Your task to perform on an android device: Open Chrome and go to settings Image 0: 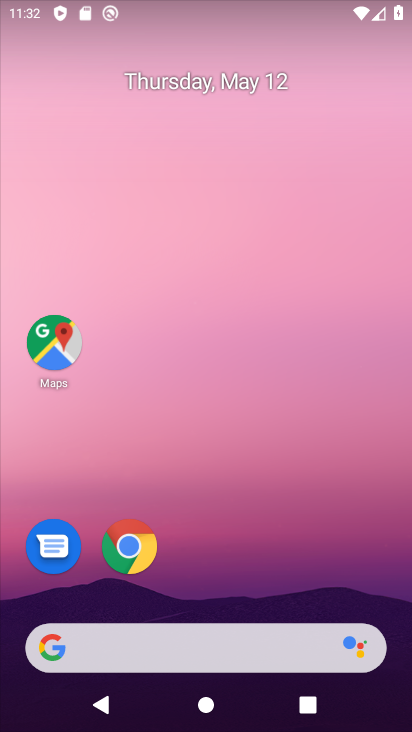
Step 0: click (126, 539)
Your task to perform on an android device: Open Chrome and go to settings Image 1: 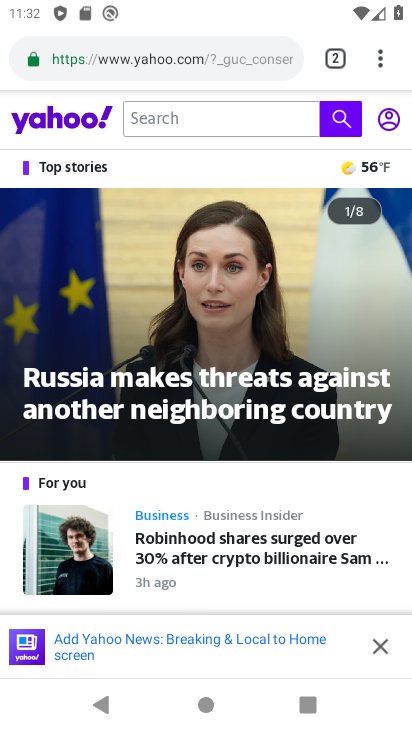
Step 1: click (381, 61)
Your task to perform on an android device: Open Chrome and go to settings Image 2: 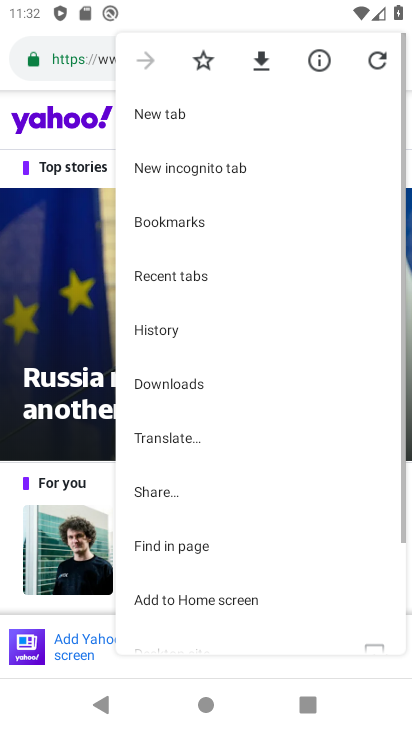
Step 2: drag from (197, 548) to (197, 215)
Your task to perform on an android device: Open Chrome and go to settings Image 3: 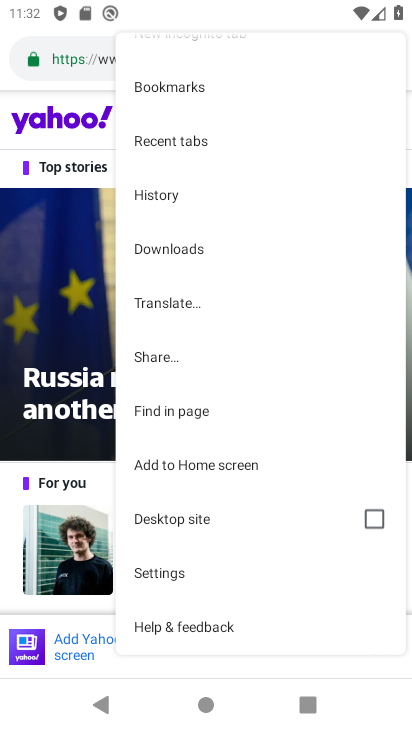
Step 3: click (161, 571)
Your task to perform on an android device: Open Chrome and go to settings Image 4: 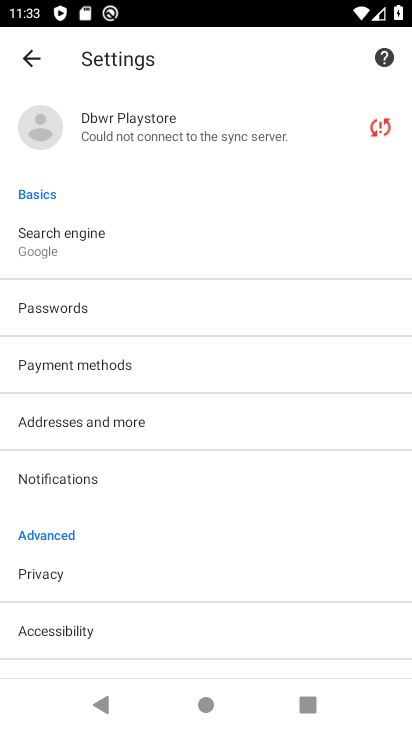
Step 4: task complete